Your task to perform on an android device: search for starred emails in the gmail app Image 0: 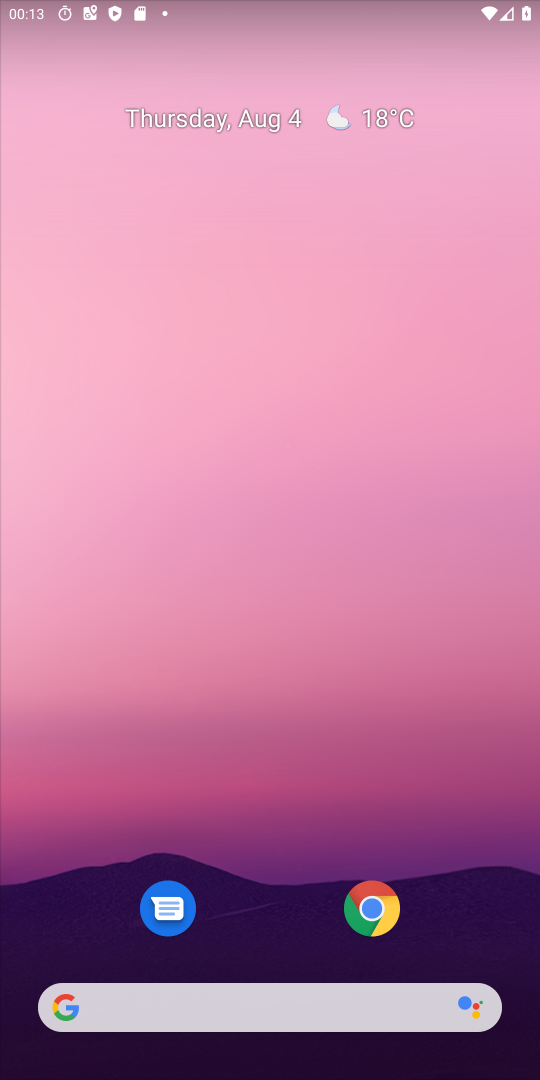
Step 0: drag from (299, 1023) to (179, 270)
Your task to perform on an android device: search for starred emails in the gmail app Image 1: 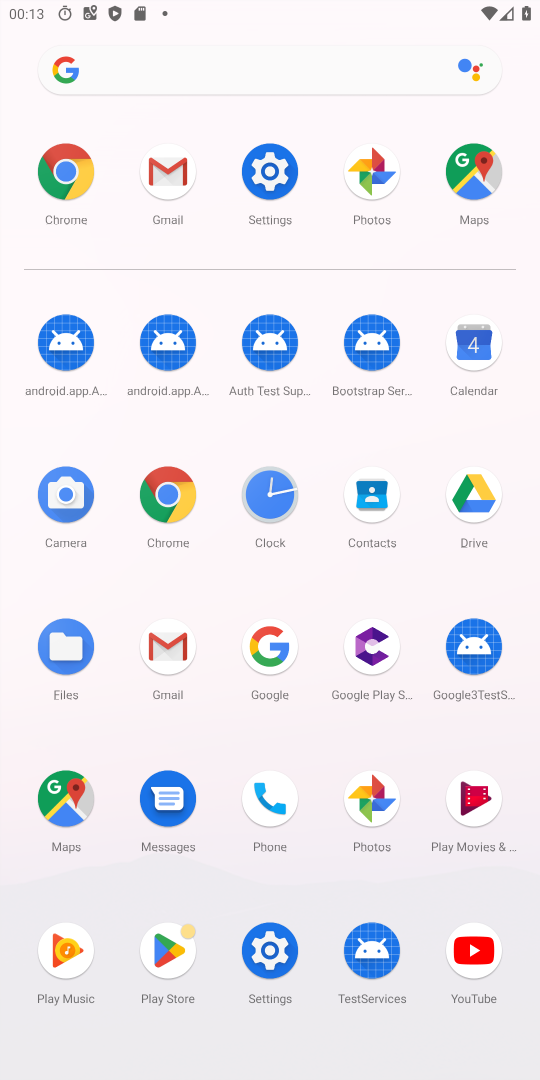
Step 1: click (152, 649)
Your task to perform on an android device: search for starred emails in the gmail app Image 2: 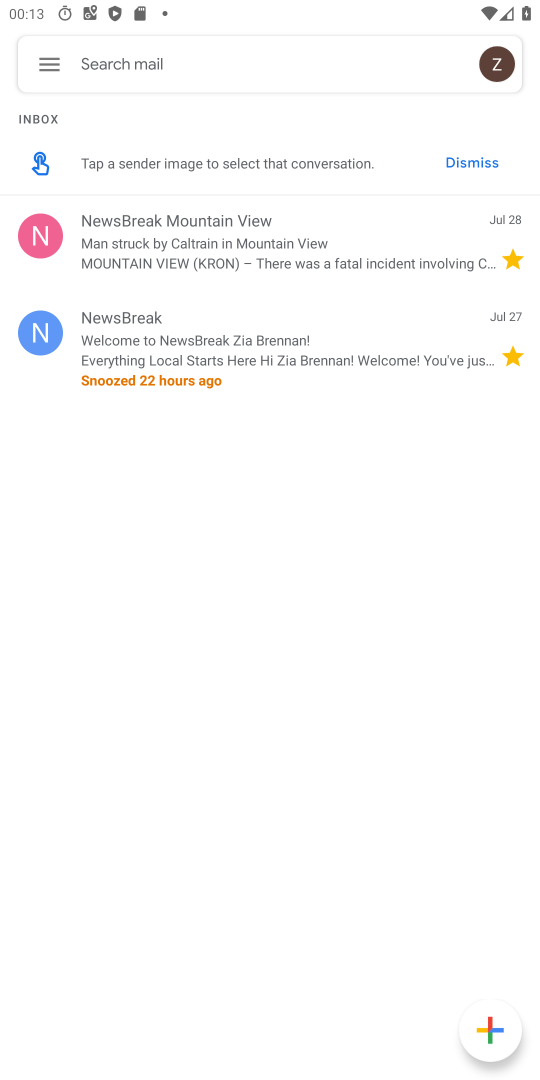
Step 2: click (51, 64)
Your task to perform on an android device: search for starred emails in the gmail app Image 3: 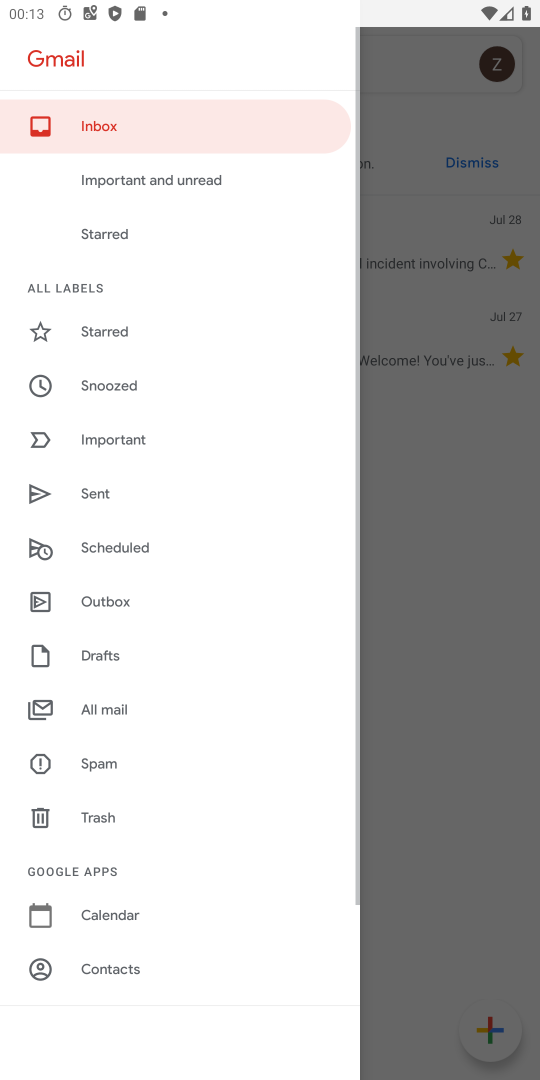
Step 3: click (121, 342)
Your task to perform on an android device: search for starred emails in the gmail app Image 4: 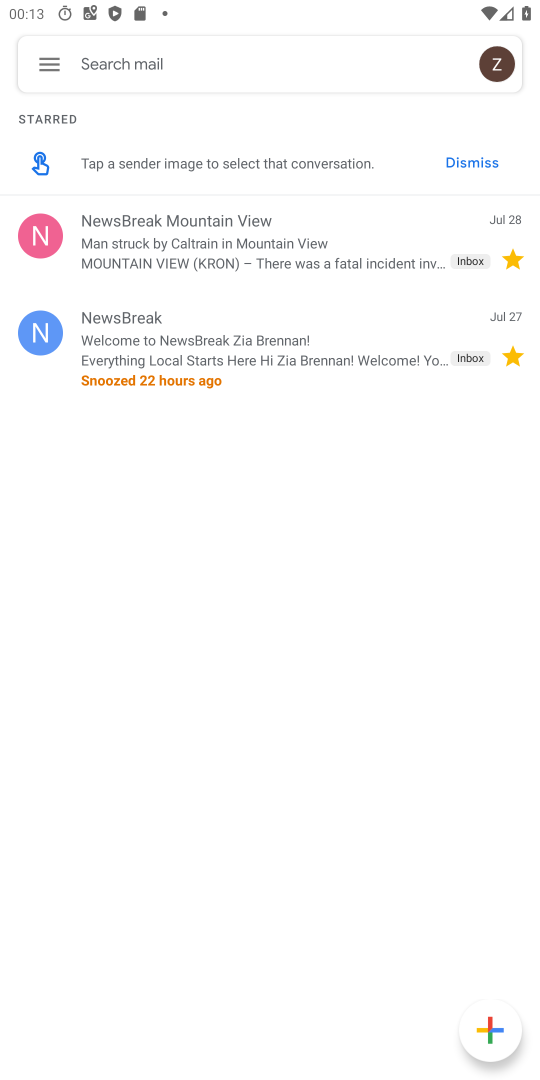
Step 4: click (468, 149)
Your task to perform on an android device: search for starred emails in the gmail app Image 5: 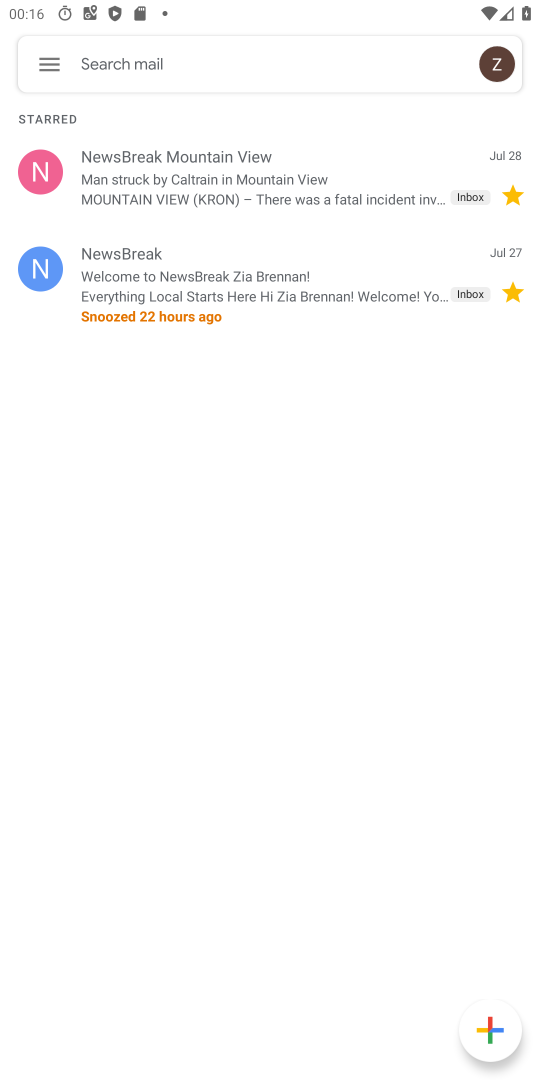
Step 5: task complete